Your task to perform on an android device: Go to eBay Image 0: 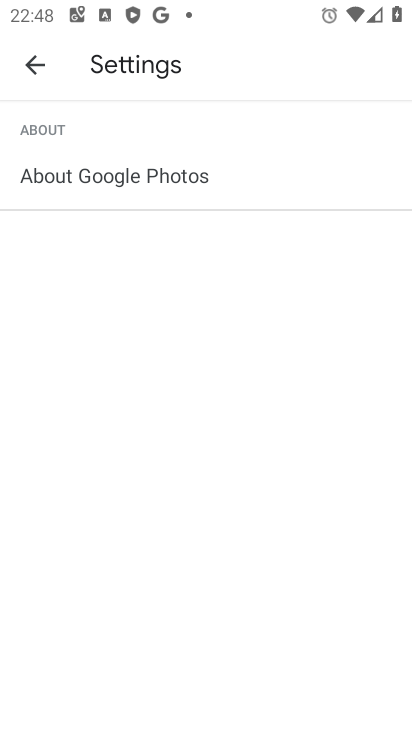
Step 0: press home button
Your task to perform on an android device: Go to eBay Image 1: 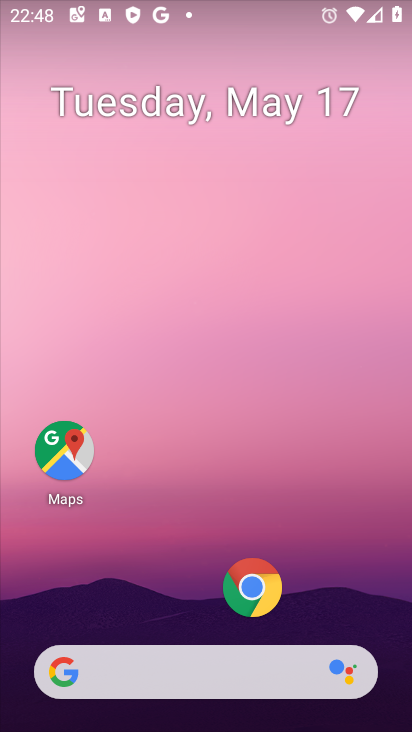
Step 1: drag from (222, 595) to (233, 164)
Your task to perform on an android device: Go to eBay Image 2: 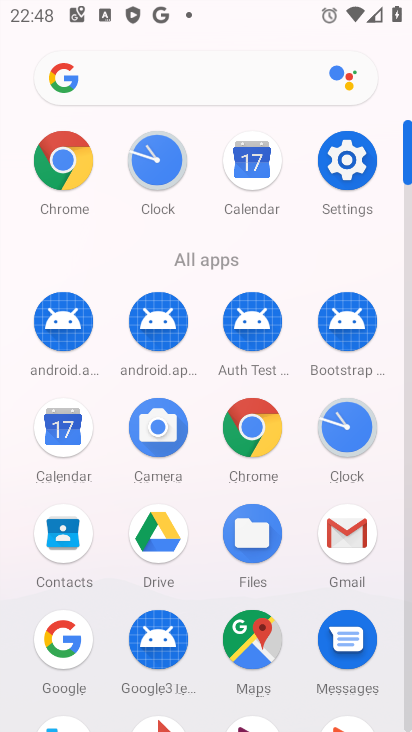
Step 2: click (261, 448)
Your task to perform on an android device: Go to eBay Image 3: 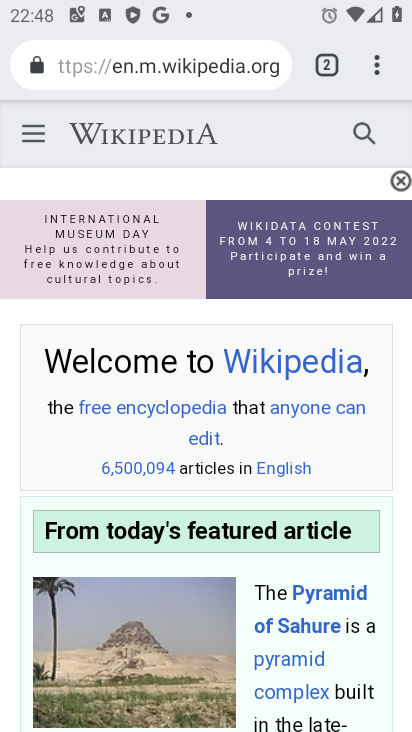
Step 3: click (342, 67)
Your task to perform on an android device: Go to eBay Image 4: 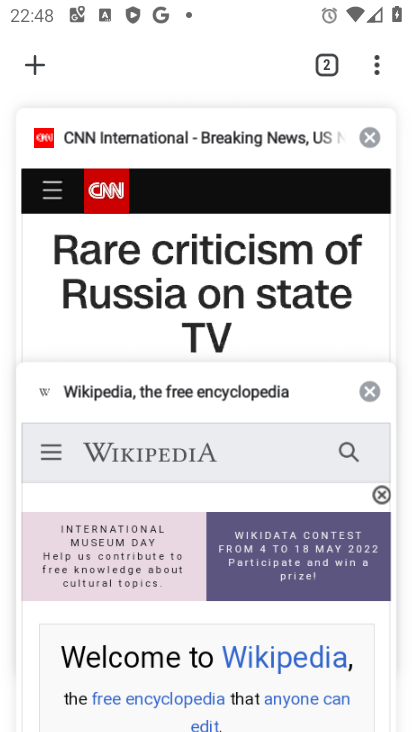
Step 4: click (35, 65)
Your task to perform on an android device: Go to eBay Image 5: 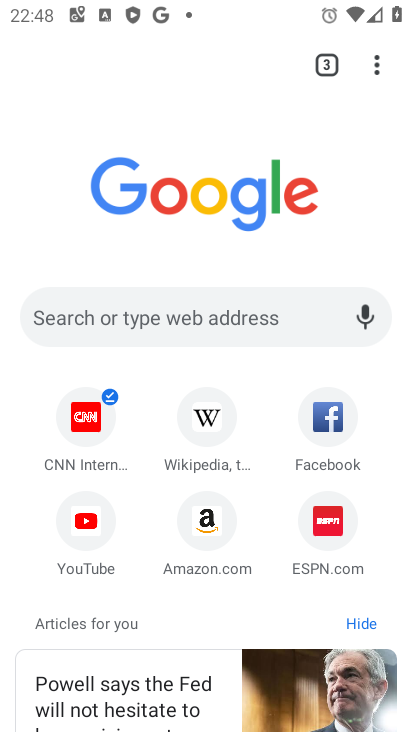
Step 5: click (206, 321)
Your task to perform on an android device: Go to eBay Image 6: 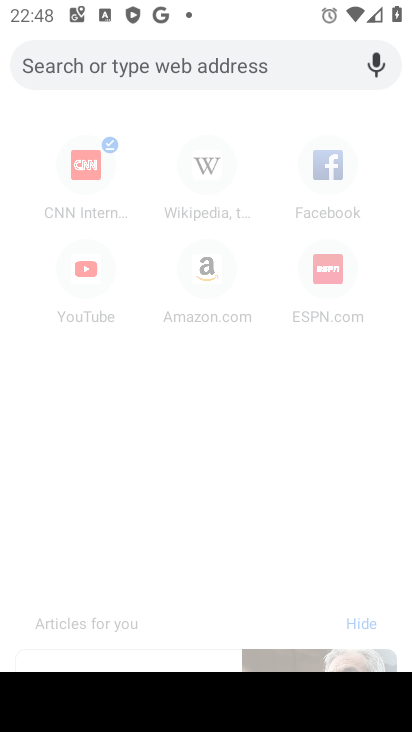
Step 6: type "eBay"
Your task to perform on an android device: Go to eBay Image 7: 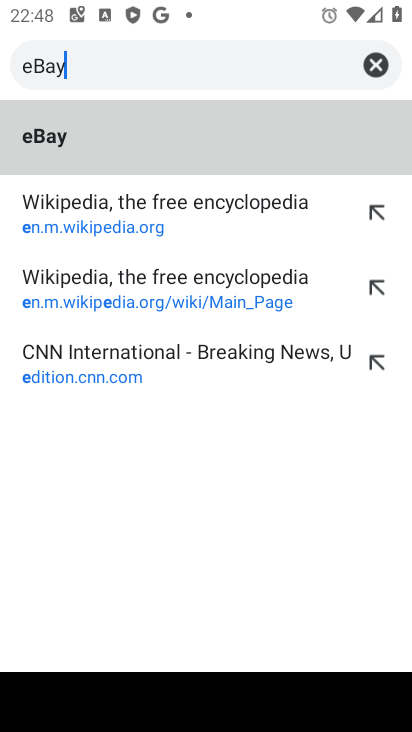
Step 7: type ""
Your task to perform on an android device: Go to eBay Image 8: 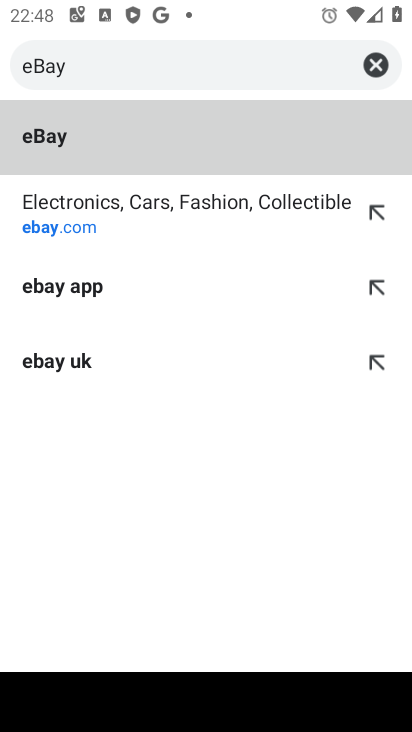
Step 8: click (164, 136)
Your task to perform on an android device: Go to eBay Image 9: 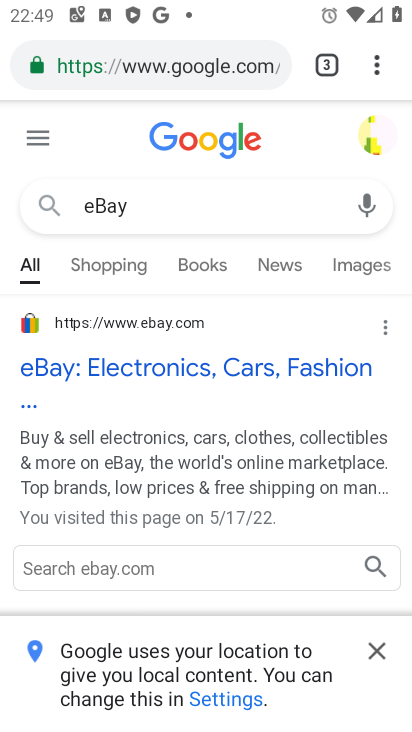
Step 9: click (227, 369)
Your task to perform on an android device: Go to eBay Image 10: 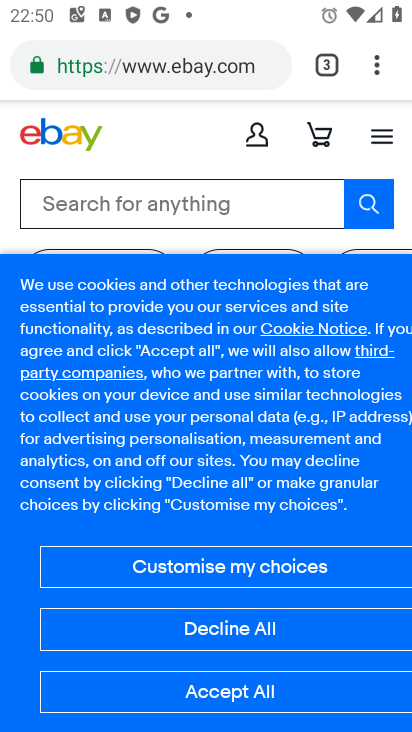
Step 10: task complete